Your task to perform on an android device: turn on bluetooth scan Image 0: 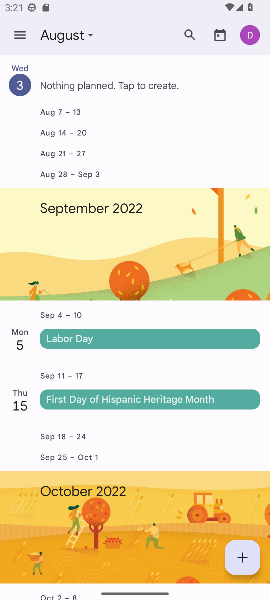
Step 0: press home button
Your task to perform on an android device: turn on bluetooth scan Image 1: 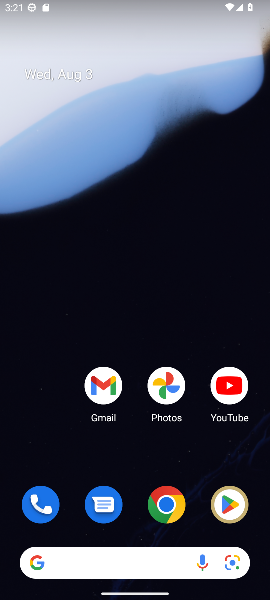
Step 1: drag from (138, 473) to (198, 14)
Your task to perform on an android device: turn on bluetooth scan Image 2: 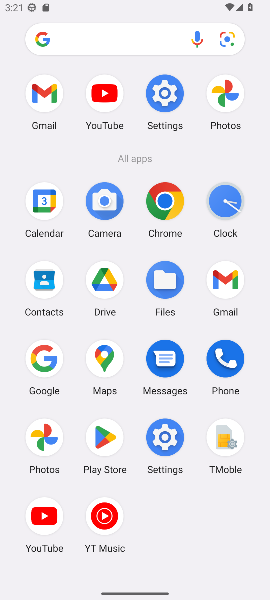
Step 2: click (174, 451)
Your task to perform on an android device: turn on bluetooth scan Image 3: 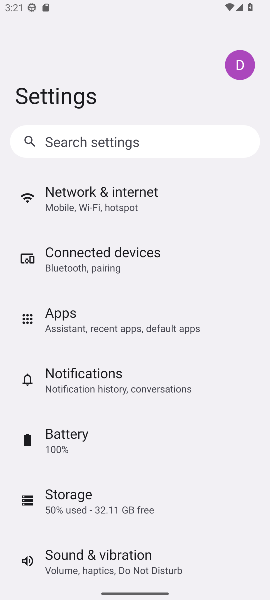
Step 3: drag from (89, 534) to (117, 336)
Your task to perform on an android device: turn on bluetooth scan Image 4: 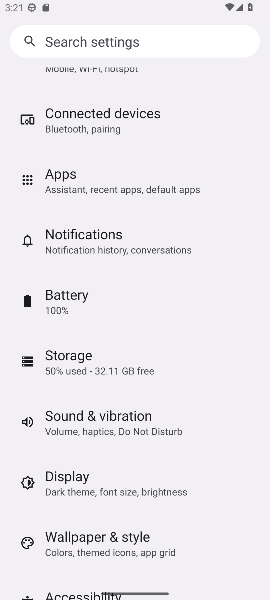
Step 4: drag from (126, 567) to (126, 318)
Your task to perform on an android device: turn on bluetooth scan Image 5: 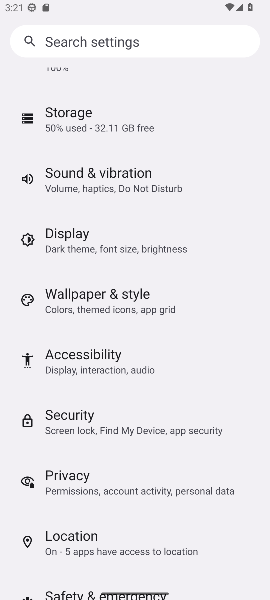
Step 5: click (82, 549)
Your task to perform on an android device: turn on bluetooth scan Image 6: 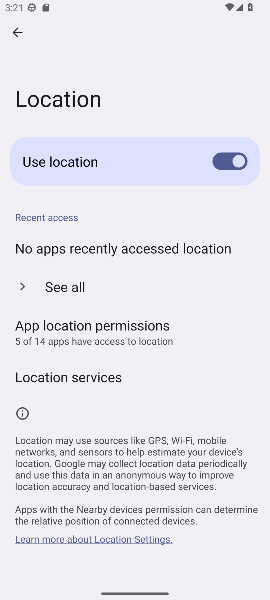
Step 6: task complete